Your task to perform on an android device: open app "Facebook Messenger" Image 0: 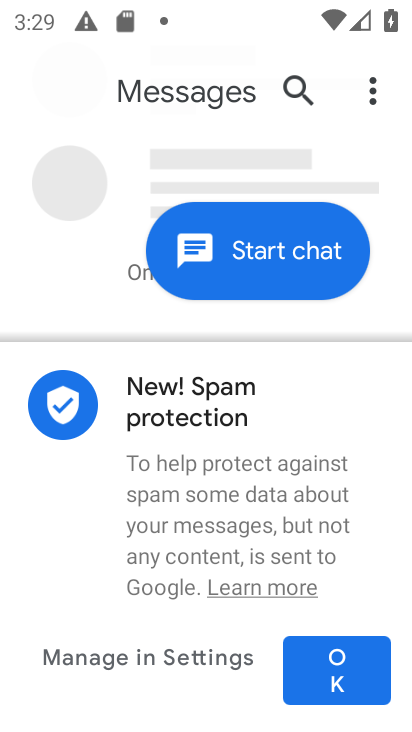
Step 0: press home button
Your task to perform on an android device: open app "Facebook Messenger" Image 1: 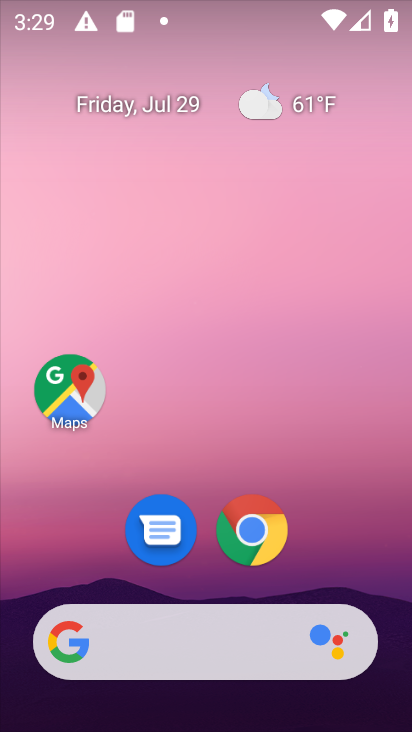
Step 1: drag from (306, 545) to (311, 3)
Your task to perform on an android device: open app "Facebook Messenger" Image 2: 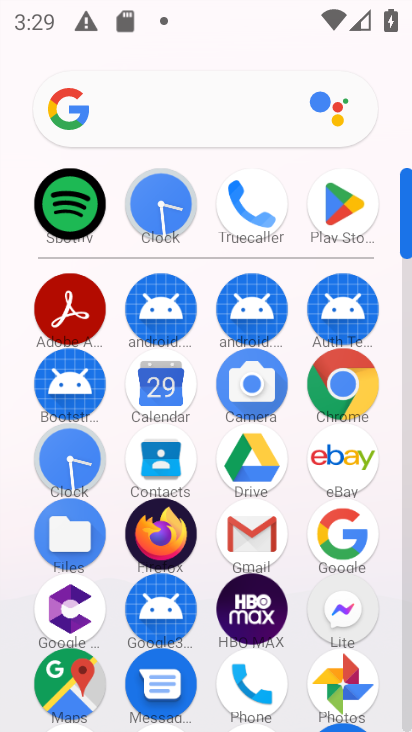
Step 2: click (345, 205)
Your task to perform on an android device: open app "Facebook Messenger" Image 3: 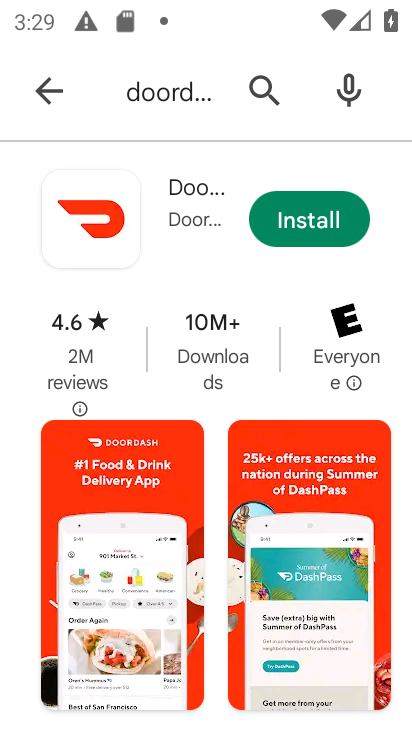
Step 3: click (254, 92)
Your task to perform on an android device: open app "Facebook Messenger" Image 4: 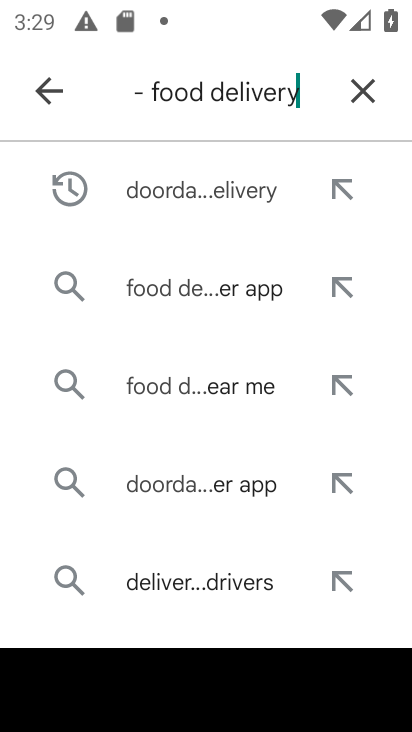
Step 4: click (364, 93)
Your task to perform on an android device: open app "Facebook Messenger" Image 5: 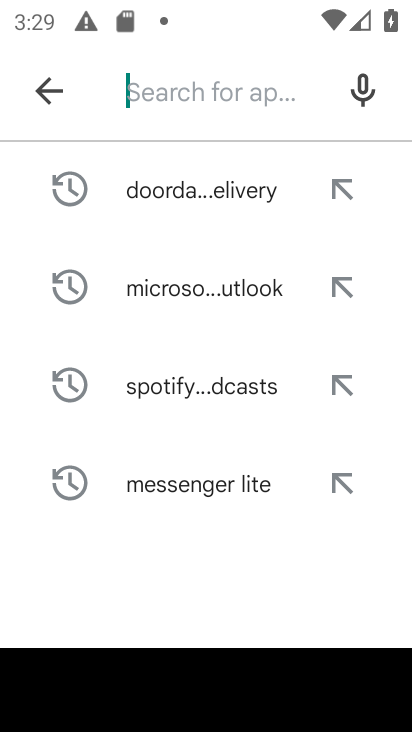
Step 5: type "Facebook Messenger"
Your task to perform on an android device: open app "Facebook Messenger" Image 6: 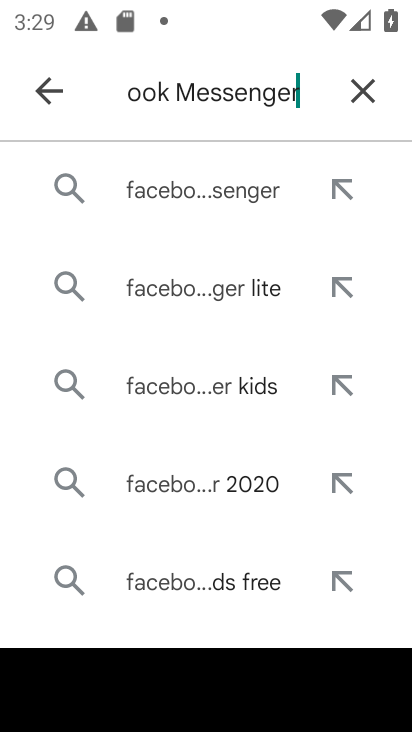
Step 6: click (225, 199)
Your task to perform on an android device: open app "Facebook Messenger" Image 7: 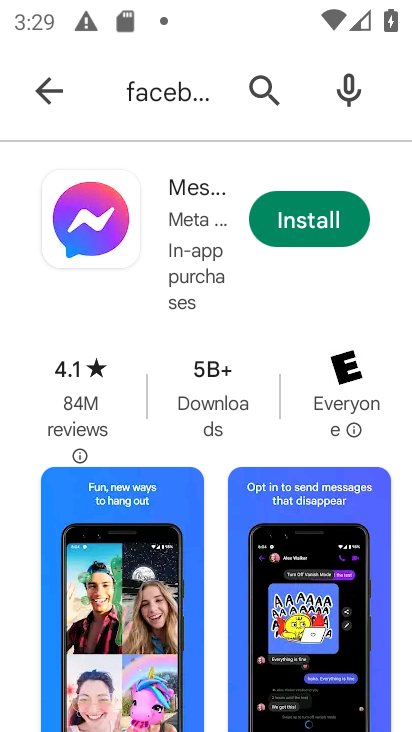
Step 7: task complete